Your task to perform on an android device: snooze an email in the gmail app Image 0: 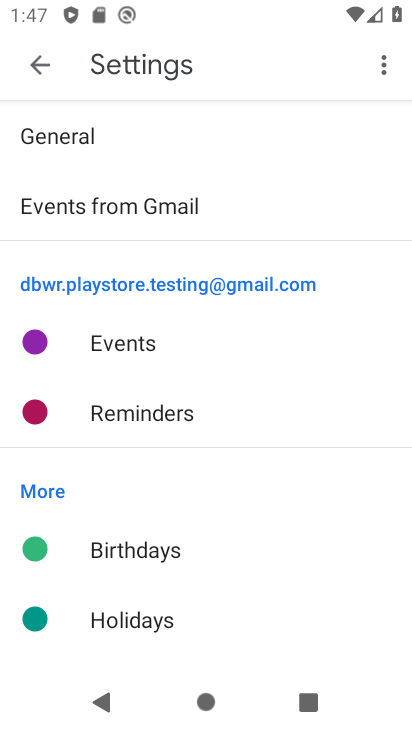
Step 0: drag from (289, 595) to (342, 151)
Your task to perform on an android device: snooze an email in the gmail app Image 1: 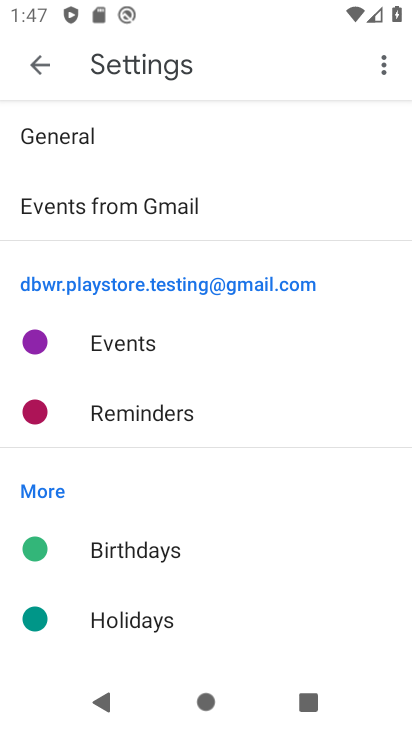
Step 1: press home button
Your task to perform on an android device: snooze an email in the gmail app Image 2: 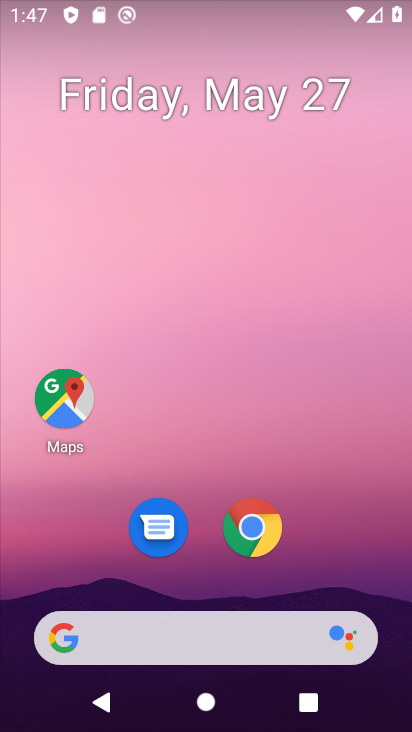
Step 2: drag from (210, 608) to (229, 149)
Your task to perform on an android device: snooze an email in the gmail app Image 3: 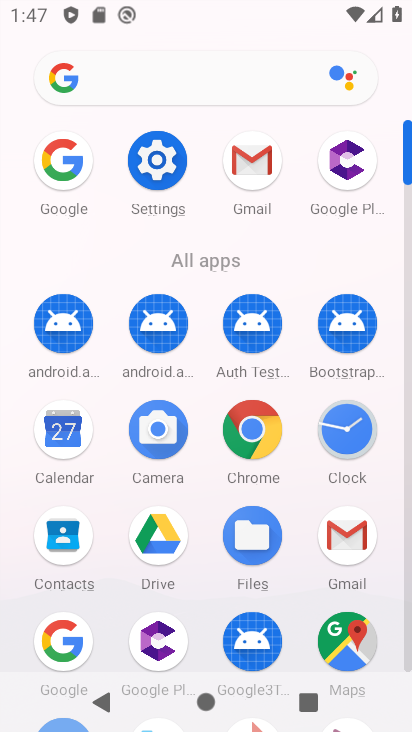
Step 3: click (352, 530)
Your task to perform on an android device: snooze an email in the gmail app Image 4: 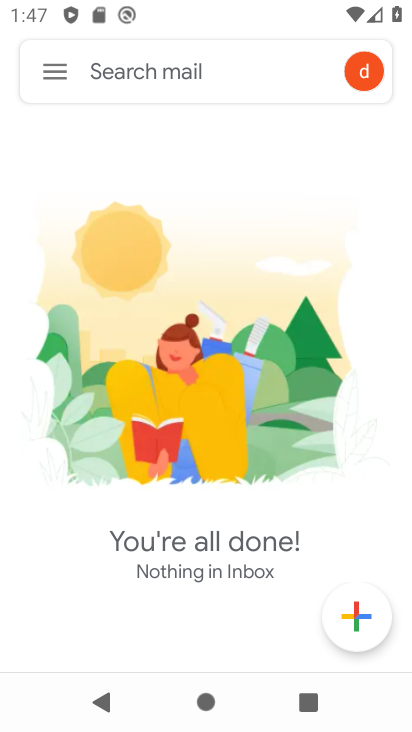
Step 4: click (51, 72)
Your task to perform on an android device: snooze an email in the gmail app Image 5: 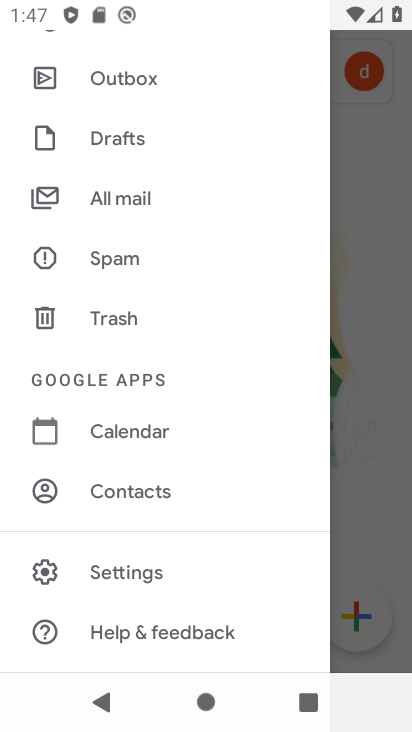
Step 5: drag from (143, 94) to (175, 569)
Your task to perform on an android device: snooze an email in the gmail app Image 6: 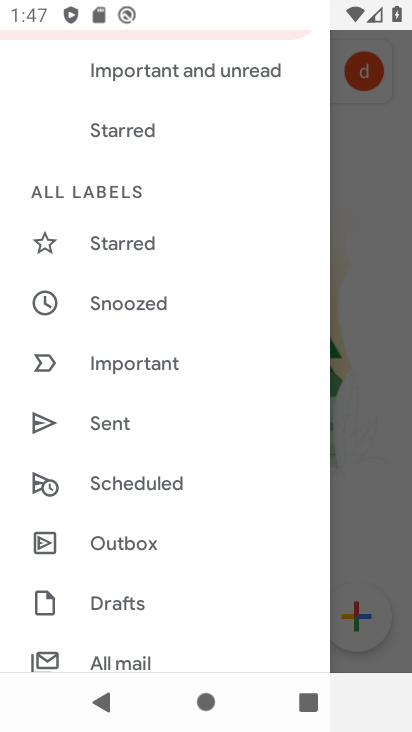
Step 6: click (127, 288)
Your task to perform on an android device: snooze an email in the gmail app Image 7: 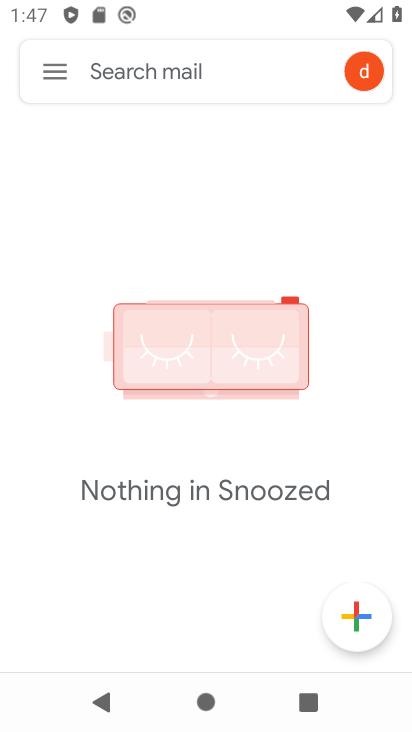
Step 7: task complete